Your task to perform on an android device: check storage Image 0: 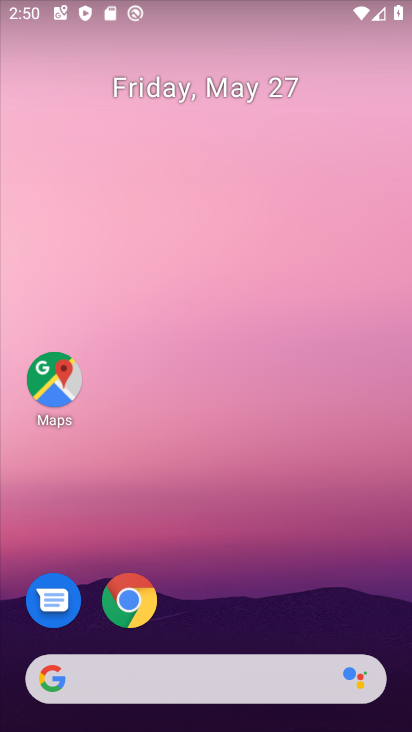
Step 0: drag from (334, 603) to (298, 243)
Your task to perform on an android device: check storage Image 1: 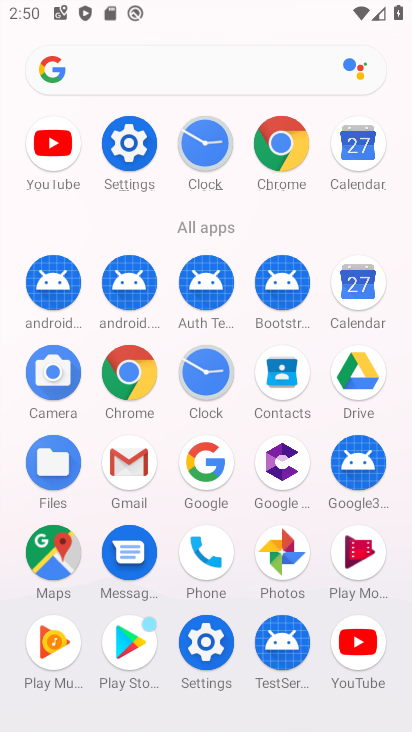
Step 1: click (140, 165)
Your task to perform on an android device: check storage Image 2: 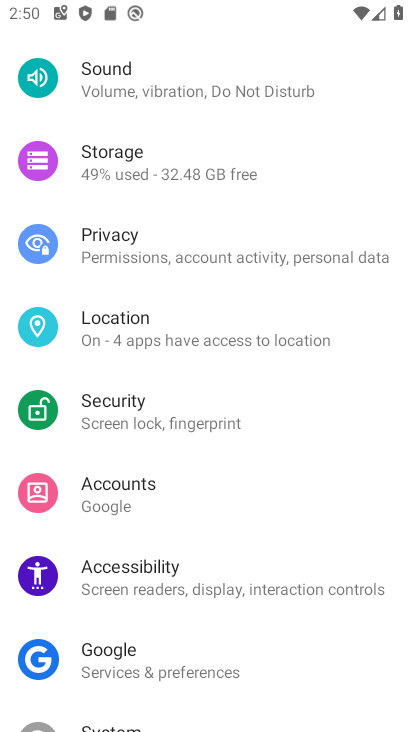
Step 2: click (134, 178)
Your task to perform on an android device: check storage Image 3: 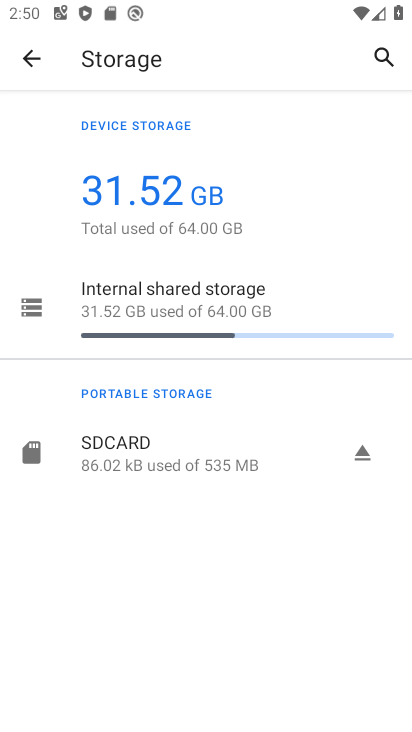
Step 3: task complete